Your task to perform on an android device: Open Google Chrome Image 0: 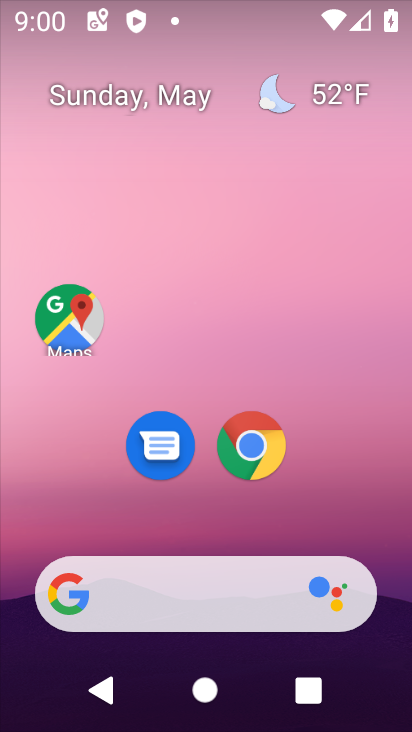
Step 0: click (248, 451)
Your task to perform on an android device: Open Google Chrome Image 1: 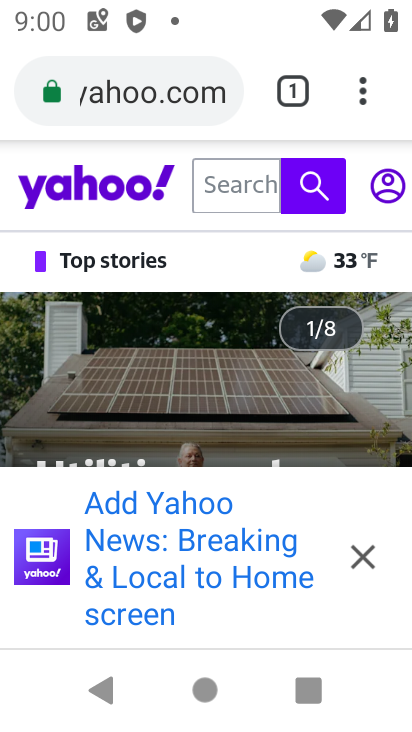
Step 1: task complete